Your task to perform on an android device: toggle priority inbox in the gmail app Image 0: 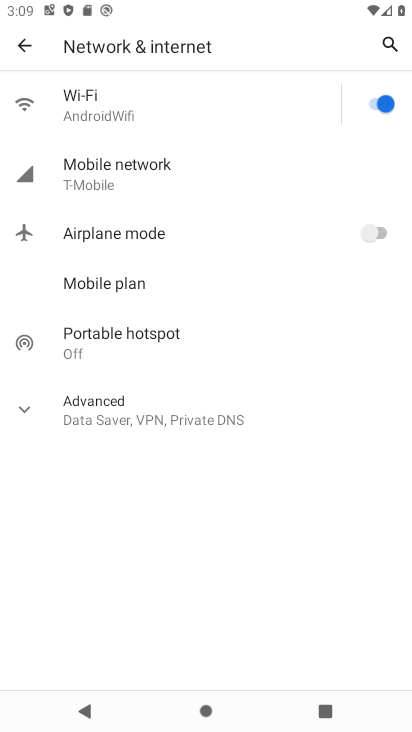
Step 0: press home button
Your task to perform on an android device: toggle priority inbox in the gmail app Image 1: 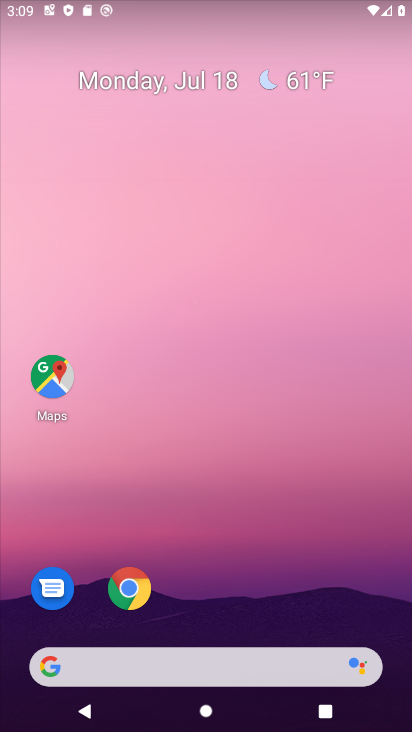
Step 1: drag from (263, 605) to (170, 139)
Your task to perform on an android device: toggle priority inbox in the gmail app Image 2: 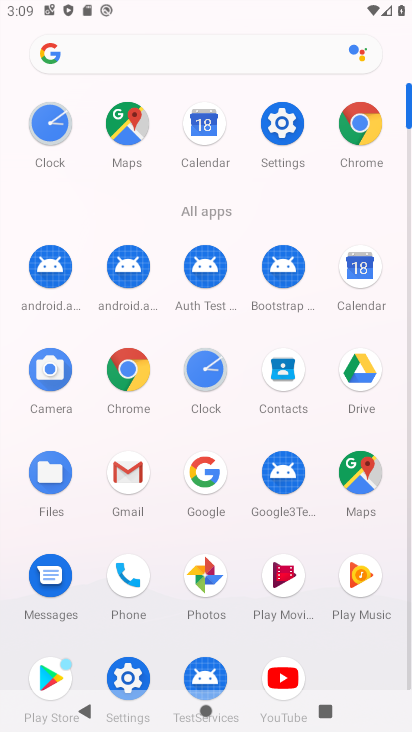
Step 2: click (130, 485)
Your task to perform on an android device: toggle priority inbox in the gmail app Image 3: 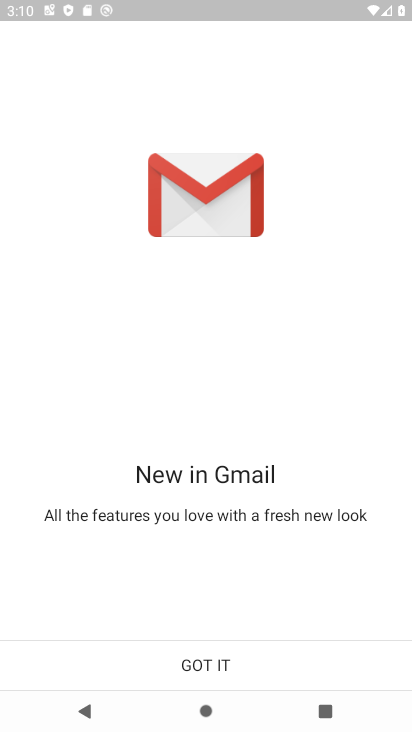
Step 3: click (252, 663)
Your task to perform on an android device: toggle priority inbox in the gmail app Image 4: 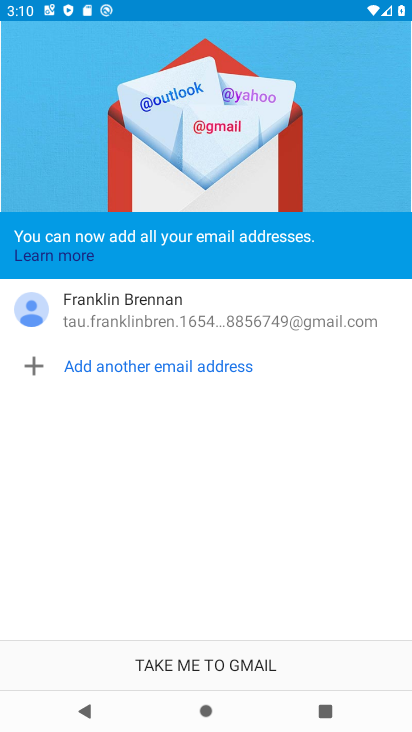
Step 4: click (252, 663)
Your task to perform on an android device: toggle priority inbox in the gmail app Image 5: 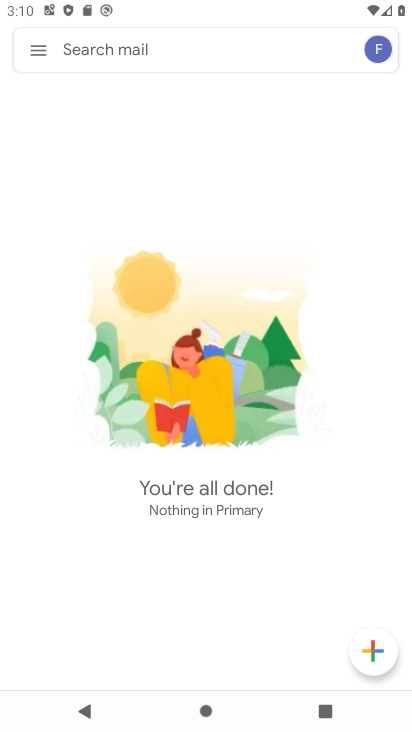
Step 5: click (36, 64)
Your task to perform on an android device: toggle priority inbox in the gmail app Image 6: 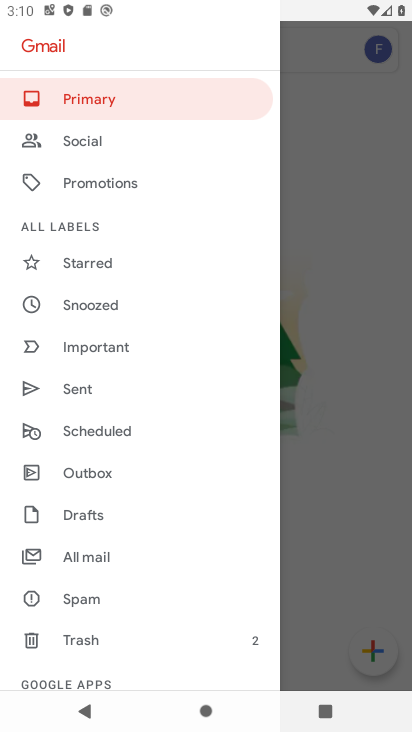
Step 6: drag from (95, 621) to (88, 385)
Your task to perform on an android device: toggle priority inbox in the gmail app Image 7: 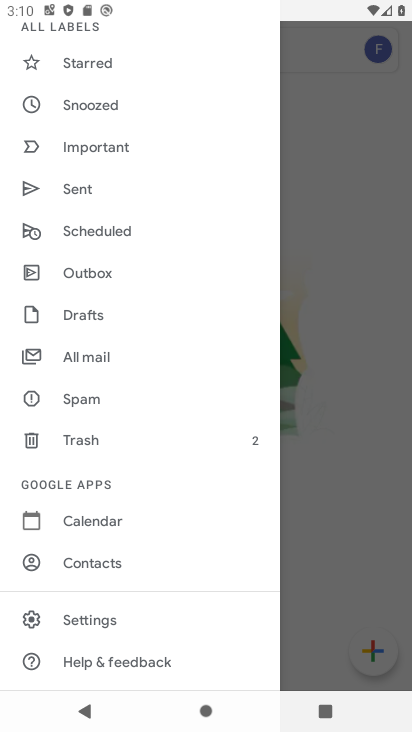
Step 7: click (137, 609)
Your task to perform on an android device: toggle priority inbox in the gmail app Image 8: 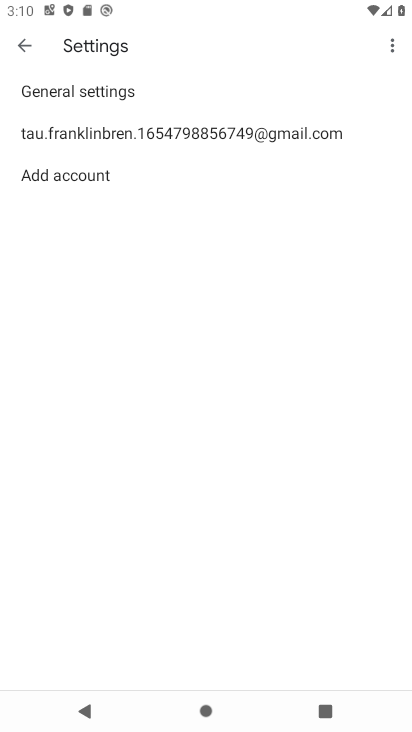
Step 8: click (202, 145)
Your task to perform on an android device: toggle priority inbox in the gmail app Image 9: 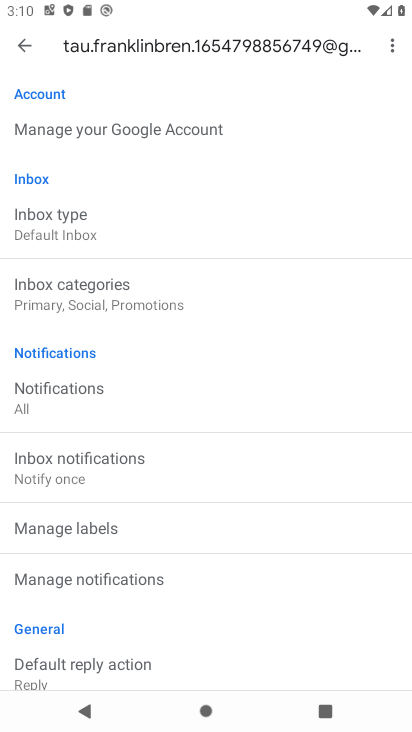
Step 9: task complete